Your task to perform on an android device: turn off notifications settings in the gmail app Image 0: 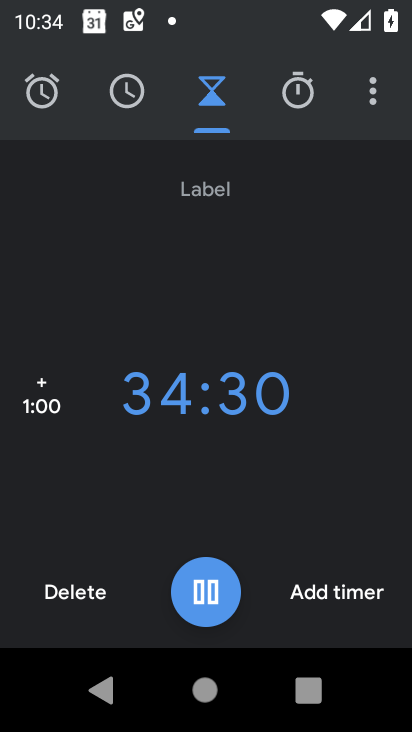
Step 0: press home button
Your task to perform on an android device: turn off notifications settings in the gmail app Image 1: 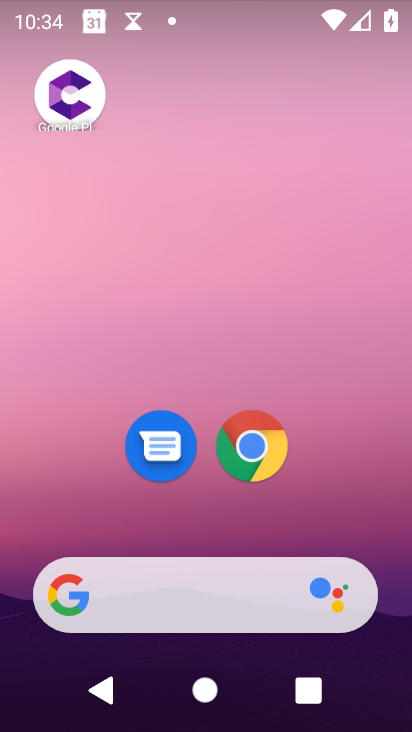
Step 1: drag from (320, 524) to (354, 7)
Your task to perform on an android device: turn off notifications settings in the gmail app Image 2: 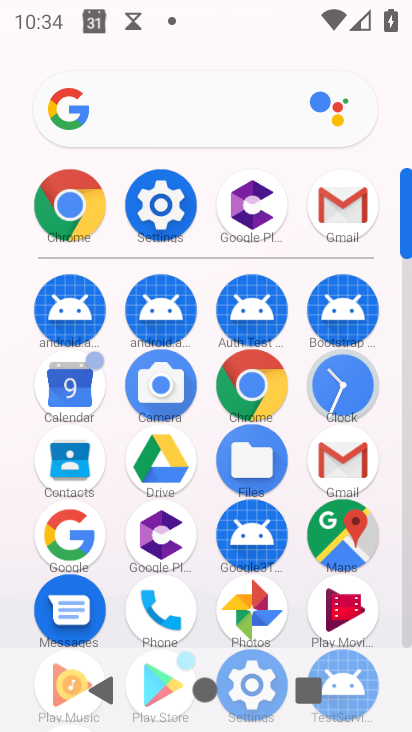
Step 2: click (343, 468)
Your task to perform on an android device: turn off notifications settings in the gmail app Image 3: 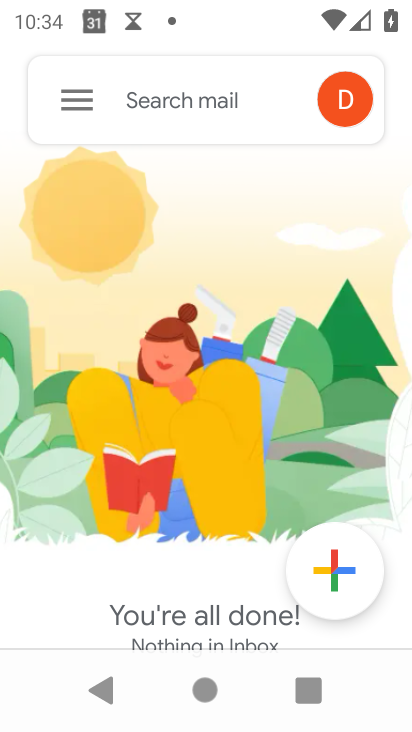
Step 3: click (65, 102)
Your task to perform on an android device: turn off notifications settings in the gmail app Image 4: 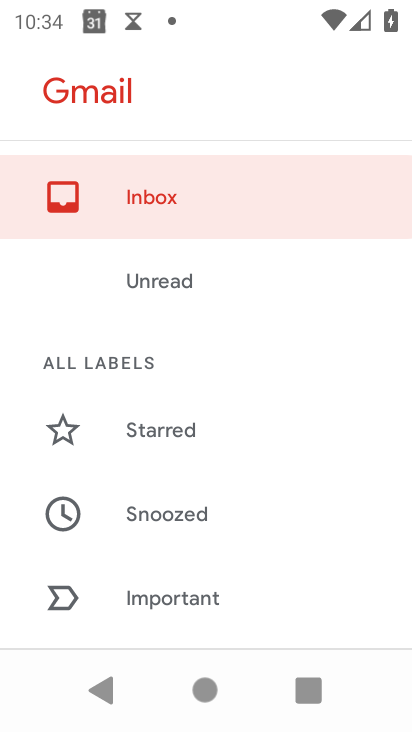
Step 4: drag from (200, 475) to (200, 69)
Your task to perform on an android device: turn off notifications settings in the gmail app Image 5: 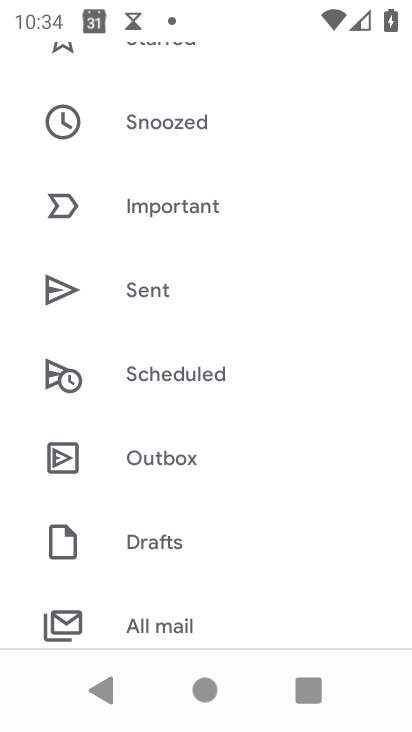
Step 5: drag from (183, 616) to (175, 170)
Your task to perform on an android device: turn off notifications settings in the gmail app Image 6: 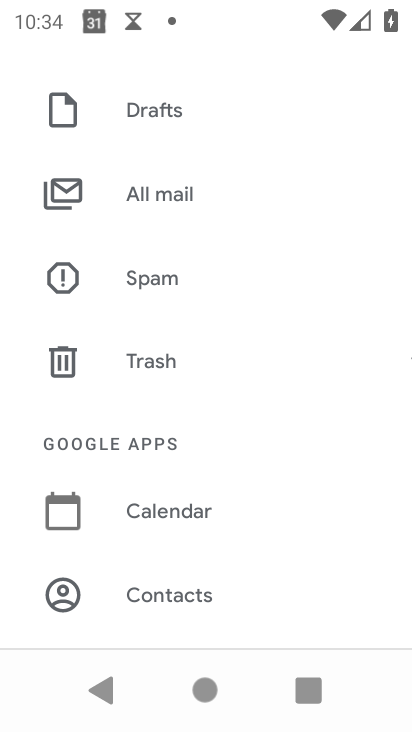
Step 6: drag from (177, 567) to (132, 152)
Your task to perform on an android device: turn off notifications settings in the gmail app Image 7: 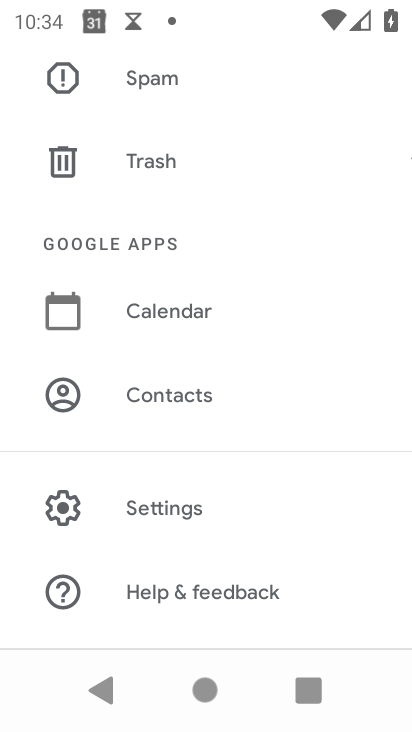
Step 7: click (177, 501)
Your task to perform on an android device: turn off notifications settings in the gmail app Image 8: 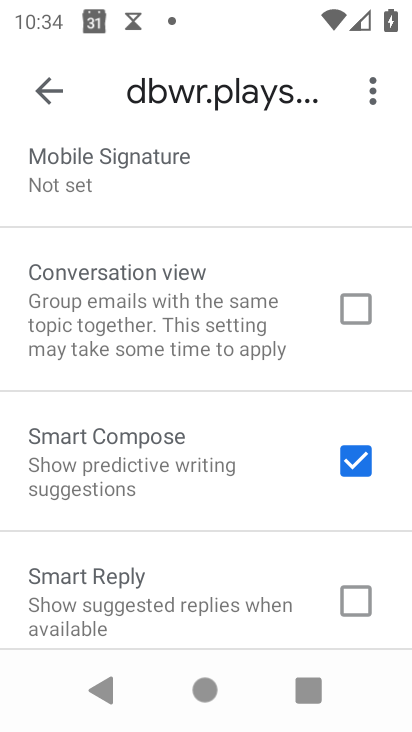
Step 8: drag from (218, 486) to (215, 93)
Your task to perform on an android device: turn off notifications settings in the gmail app Image 9: 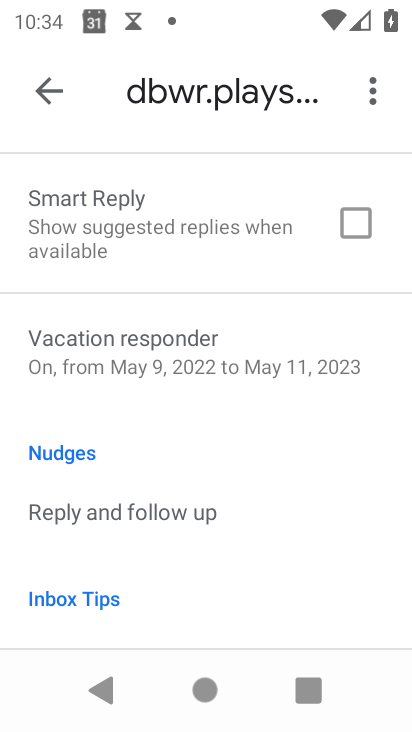
Step 9: drag from (223, 536) to (248, 88)
Your task to perform on an android device: turn off notifications settings in the gmail app Image 10: 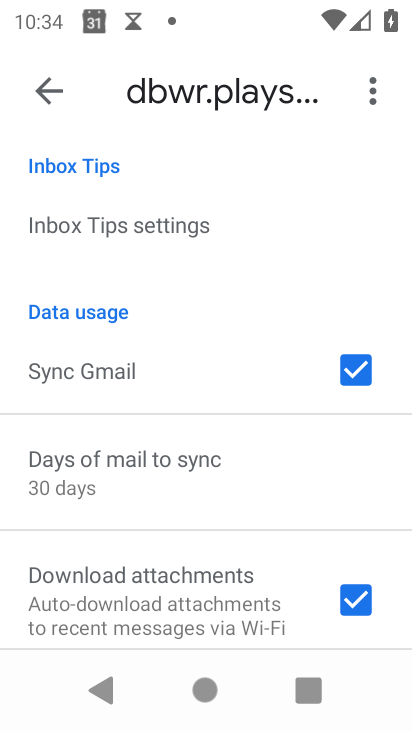
Step 10: drag from (164, 569) to (167, 114)
Your task to perform on an android device: turn off notifications settings in the gmail app Image 11: 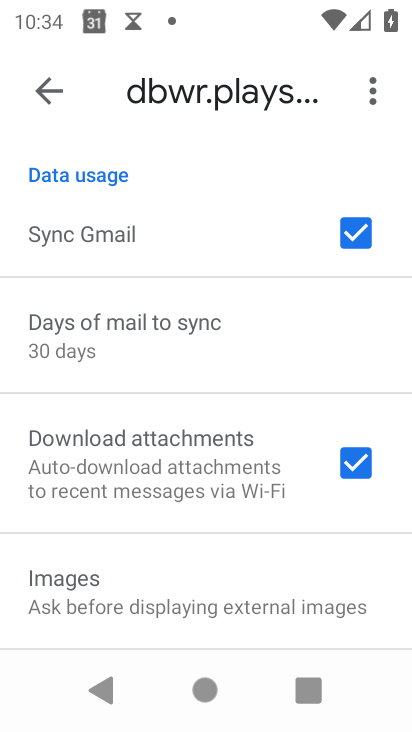
Step 11: drag from (151, 572) to (151, 245)
Your task to perform on an android device: turn off notifications settings in the gmail app Image 12: 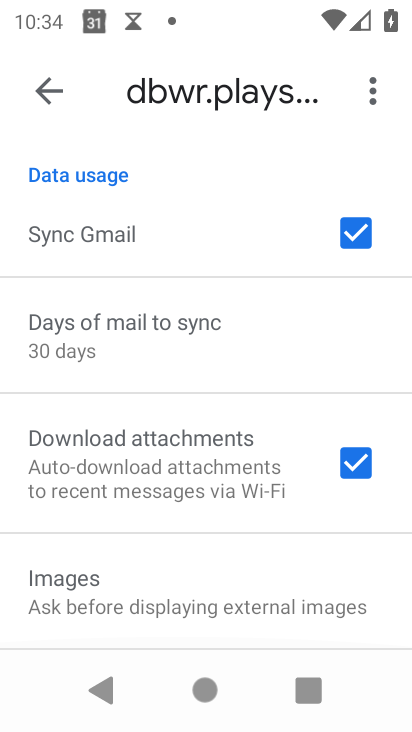
Step 12: drag from (151, 244) to (144, 571)
Your task to perform on an android device: turn off notifications settings in the gmail app Image 13: 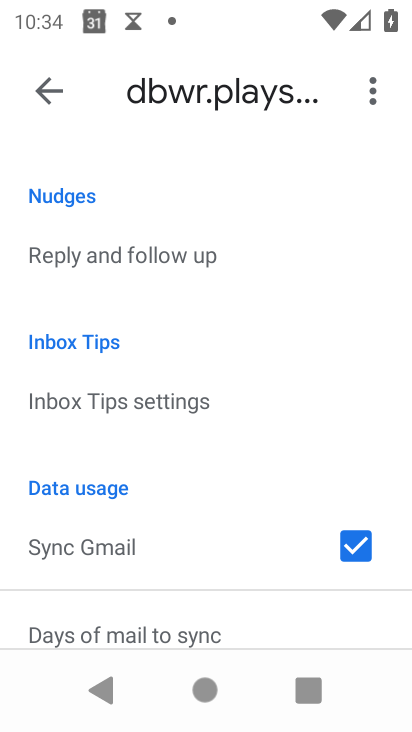
Step 13: drag from (128, 229) to (151, 558)
Your task to perform on an android device: turn off notifications settings in the gmail app Image 14: 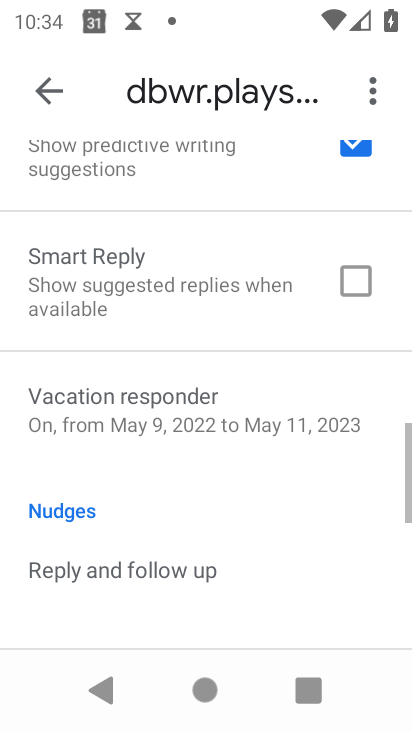
Step 14: drag from (108, 274) to (117, 501)
Your task to perform on an android device: turn off notifications settings in the gmail app Image 15: 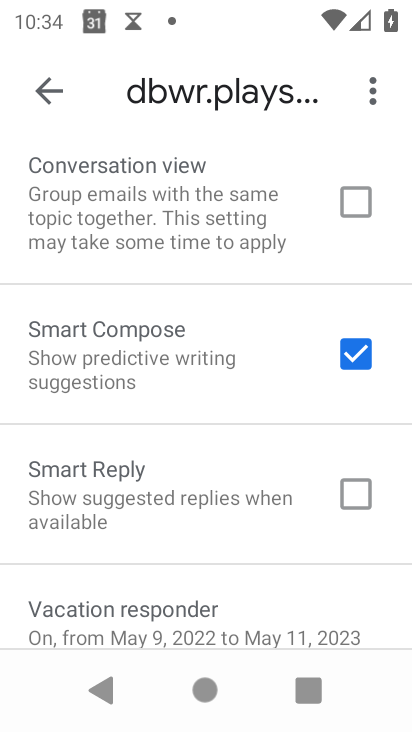
Step 15: drag from (136, 228) to (163, 513)
Your task to perform on an android device: turn off notifications settings in the gmail app Image 16: 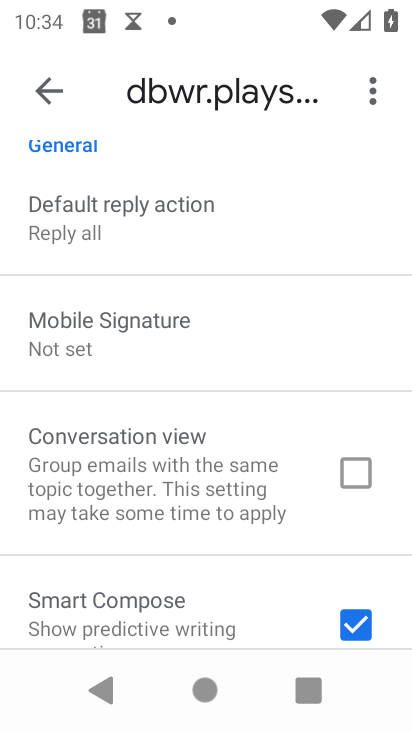
Step 16: drag from (225, 337) to (237, 537)
Your task to perform on an android device: turn off notifications settings in the gmail app Image 17: 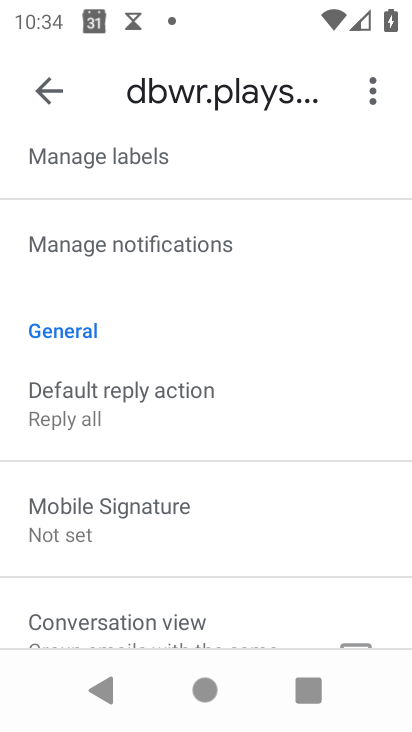
Step 17: click (126, 240)
Your task to perform on an android device: turn off notifications settings in the gmail app Image 18: 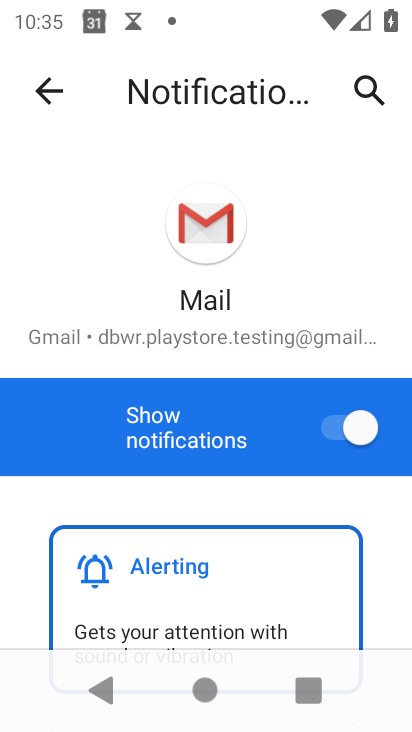
Step 18: drag from (141, 594) to (121, 208)
Your task to perform on an android device: turn off notifications settings in the gmail app Image 19: 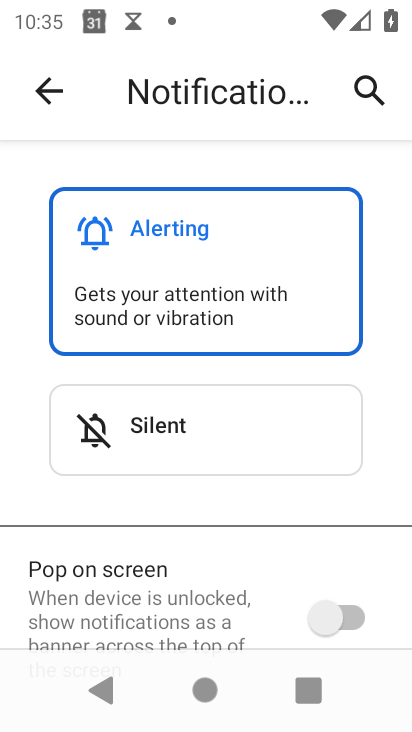
Step 19: drag from (155, 591) to (138, 165)
Your task to perform on an android device: turn off notifications settings in the gmail app Image 20: 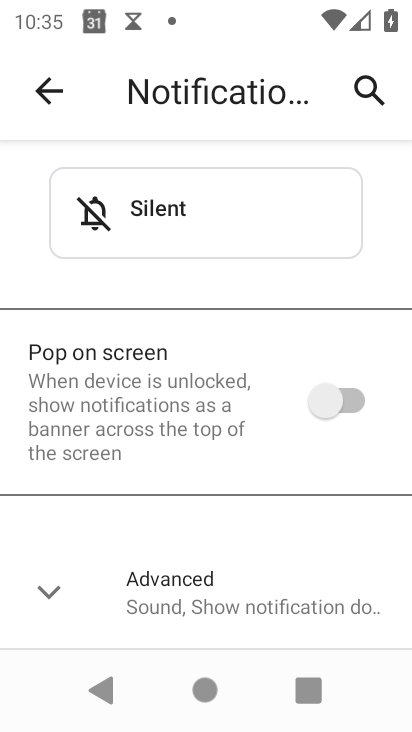
Step 20: click (150, 573)
Your task to perform on an android device: turn off notifications settings in the gmail app Image 21: 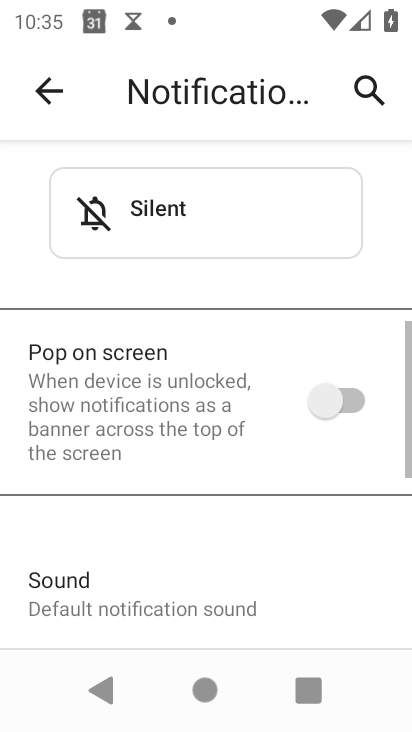
Step 21: drag from (148, 572) to (198, 146)
Your task to perform on an android device: turn off notifications settings in the gmail app Image 22: 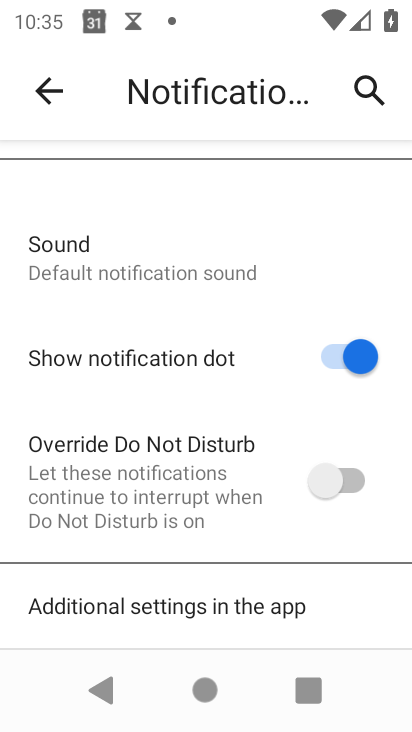
Step 22: drag from (134, 596) to (129, 252)
Your task to perform on an android device: turn off notifications settings in the gmail app Image 23: 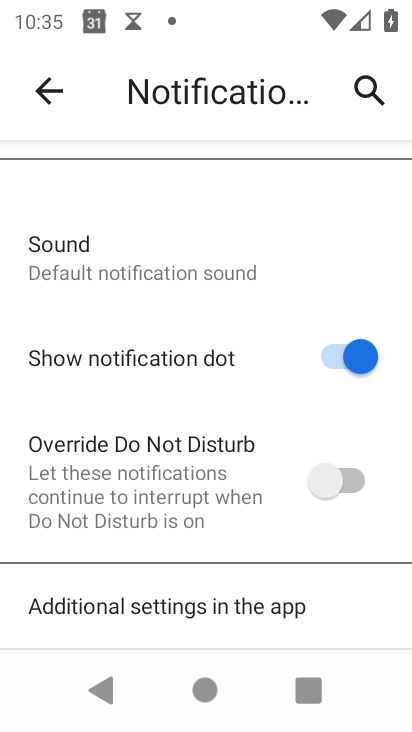
Step 23: drag from (188, 341) to (186, 610)
Your task to perform on an android device: turn off notifications settings in the gmail app Image 24: 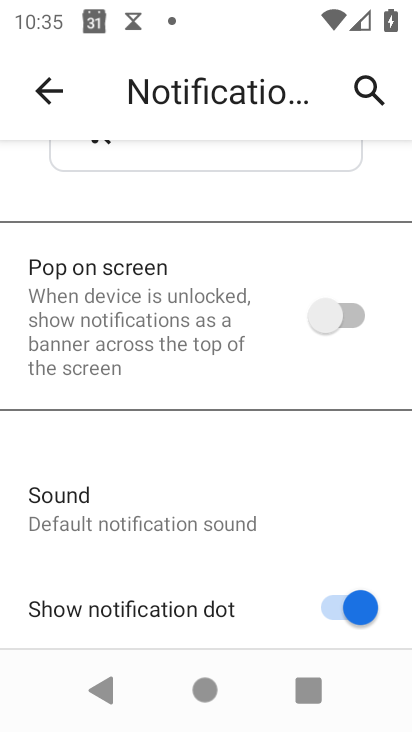
Step 24: drag from (194, 338) to (194, 578)
Your task to perform on an android device: turn off notifications settings in the gmail app Image 25: 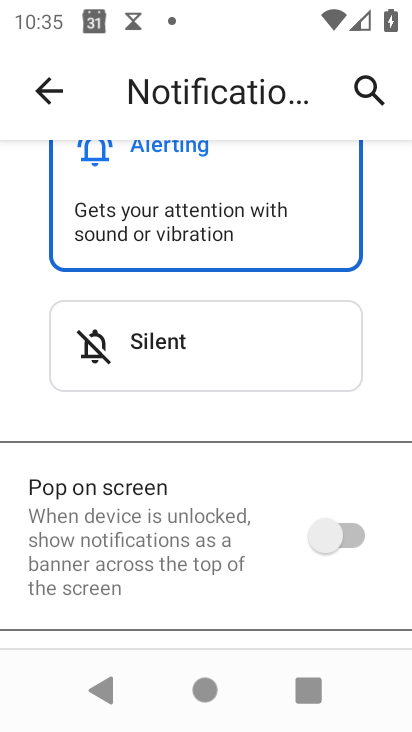
Step 25: drag from (152, 316) to (166, 533)
Your task to perform on an android device: turn off notifications settings in the gmail app Image 26: 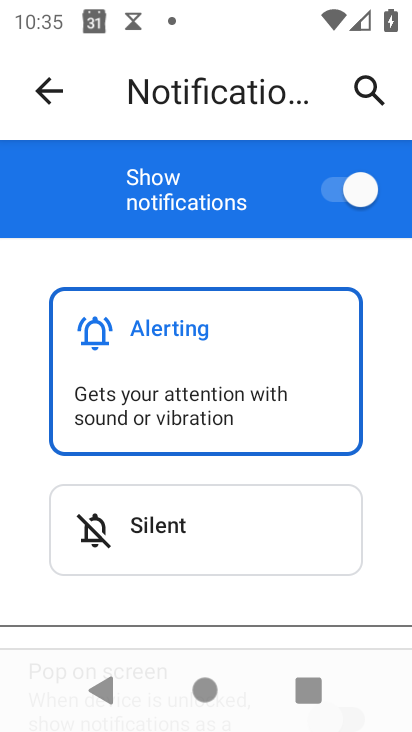
Step 26: click (348, 189)
Your task to perform on an android device: turn off notifications settings in the gmail app Image 27: 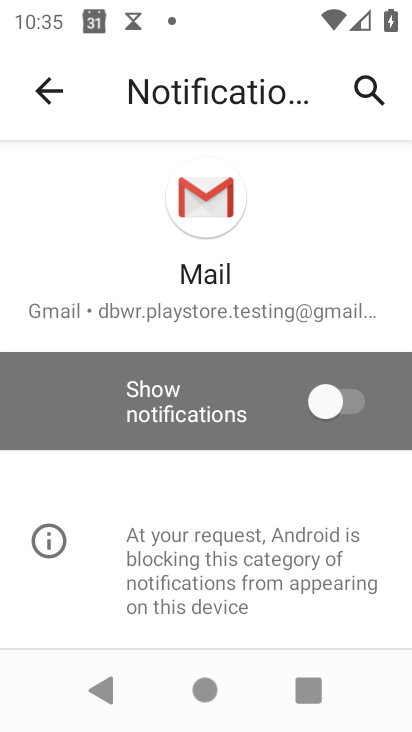
Step 27: task complete